Your task to perform on an android device: Open settings Image 0: 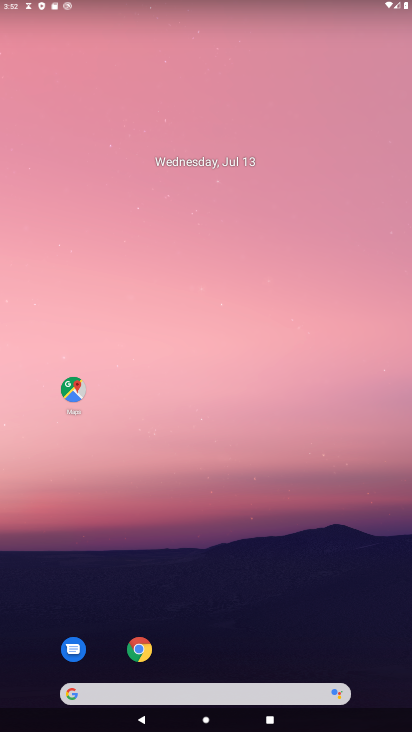
Step 0: click (226, 721)
Your task to perform on an android device: Open settings Image 1: 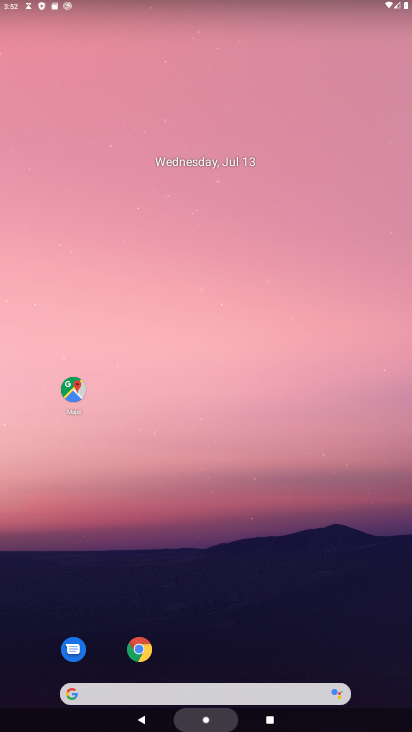
Step 1: click (226, 76)
Your task to perform on an android device: Open settings Image 2: 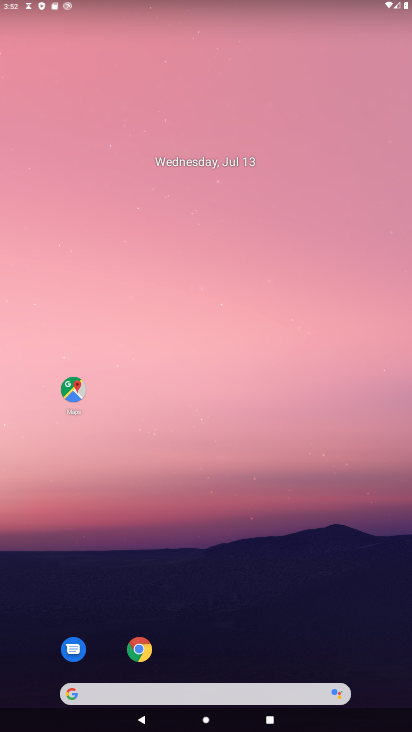
Step 2: drag from (234, 718) to (225, 93)
Your task to perform on an android device: Open settings Image 3: 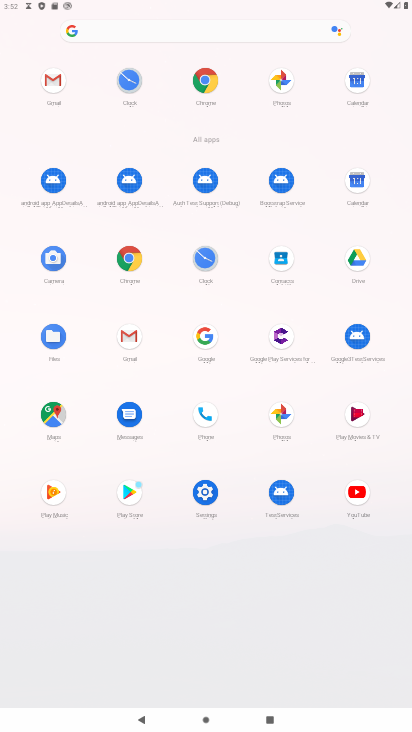
Step 3: click (206, 495)
Your task to perform on an android device: Open settings Image 4: 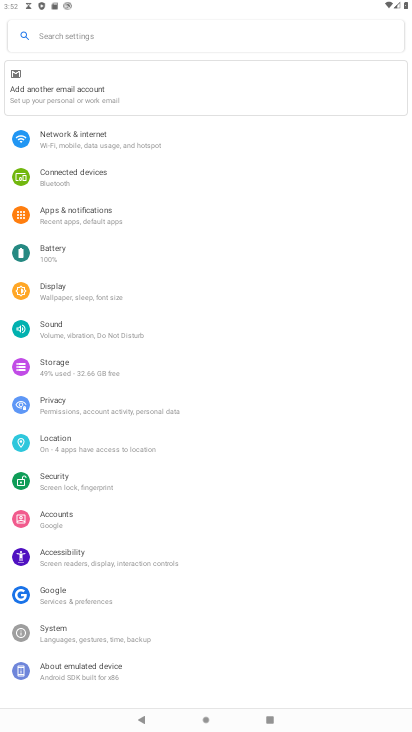
Step 4: task complete